Your task to perform on an android device: Turn on the flashlight Image 0: 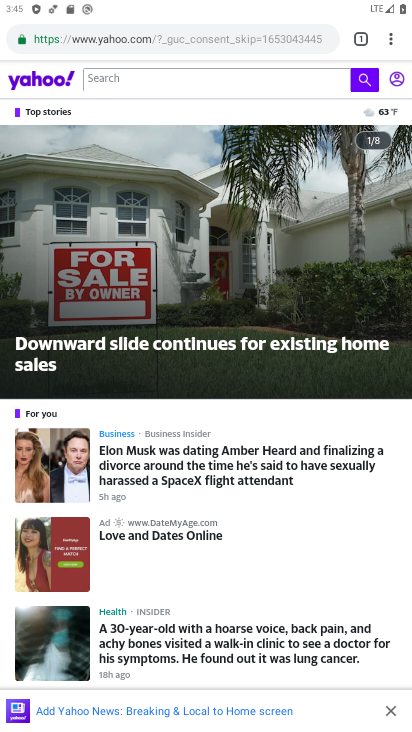
Step 0: drag from (229, 710) to (192, 355)
Your task to perform on an android device: Turn on the flashlight Image 1: 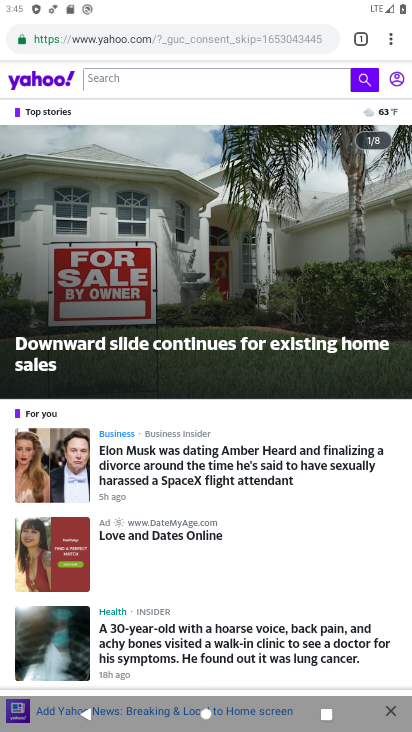
Step 1: press home button
Your task to perform on an android device: Turn on the flashlight Image 2: 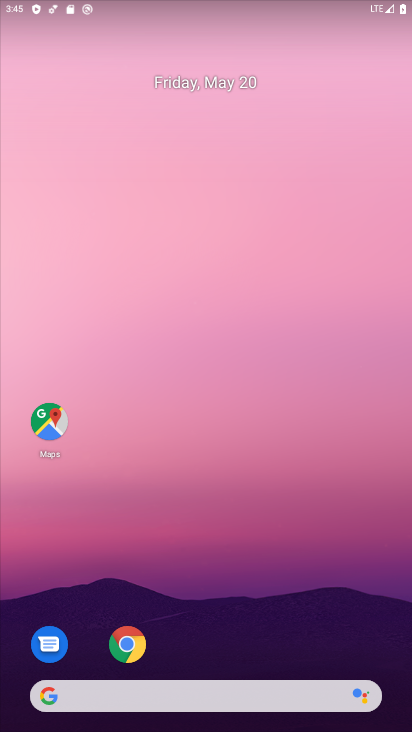
Step 2: drag from (254, 714) to (242, 199)
Your task to perform on an android device: Turn on the flashlight Image 3: 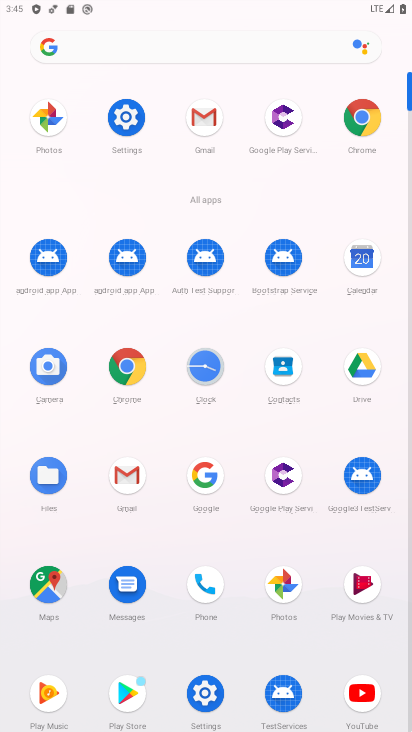
Step 3: click (136, 124)
Your task to perform on an android device: Turn on the flashlight Image 4: 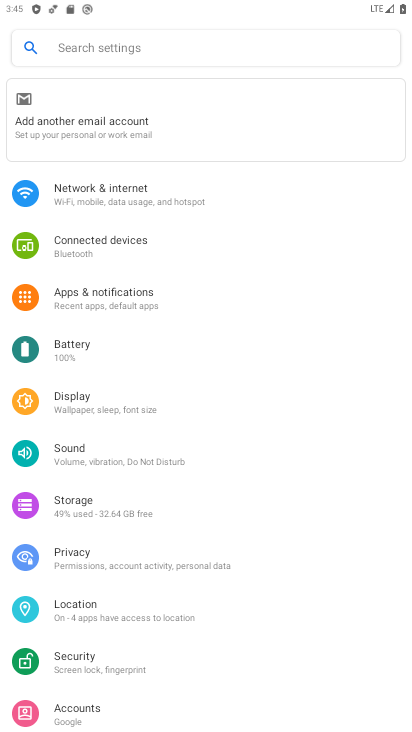
Step 4: click (115, 191)
Your task to perform on an android device: Turn on the flashlight Image 5: 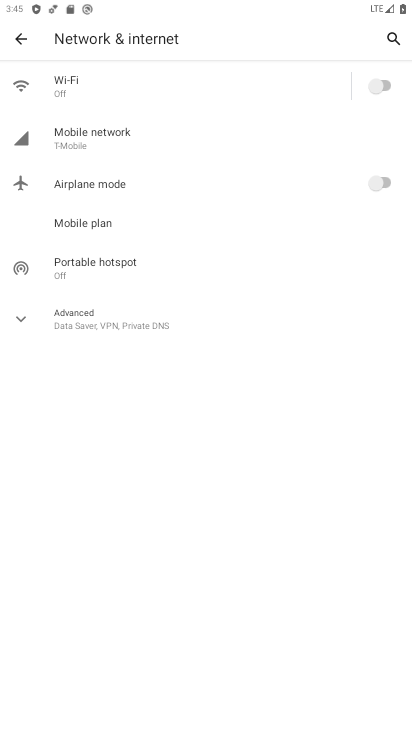
Step 5: click (26, 39)
Your task to perform on an android device: Turn on the flashlight Image 6: 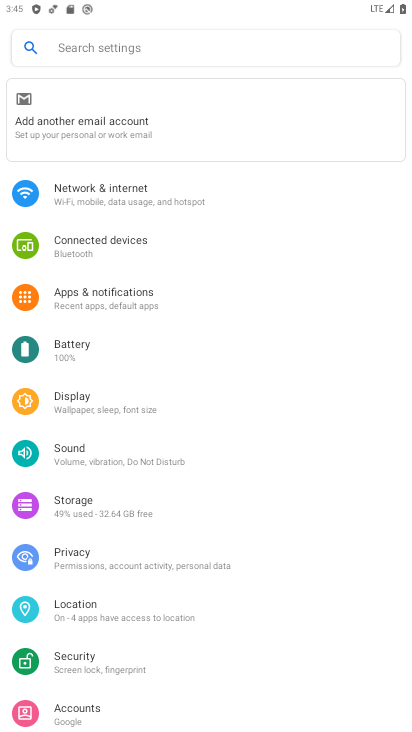
Step 6: click (96, 48)
Your task to perform on an android device: Turn on the flashlight Image 7: 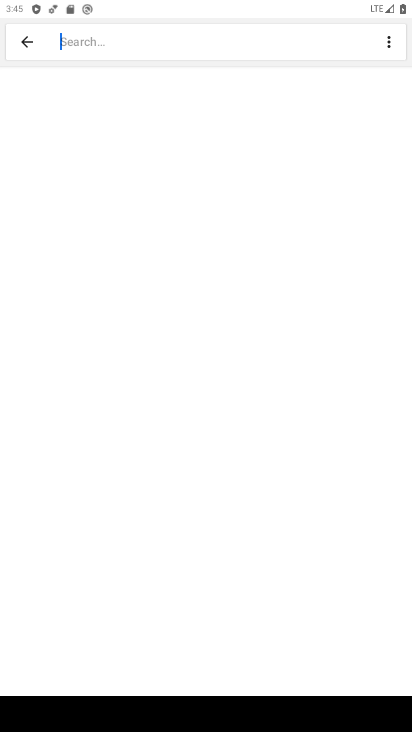
Step 7: drag from (377, 723) to (340, 475)
Your task to perform on an android device: Turn on the flashlight Image 8: 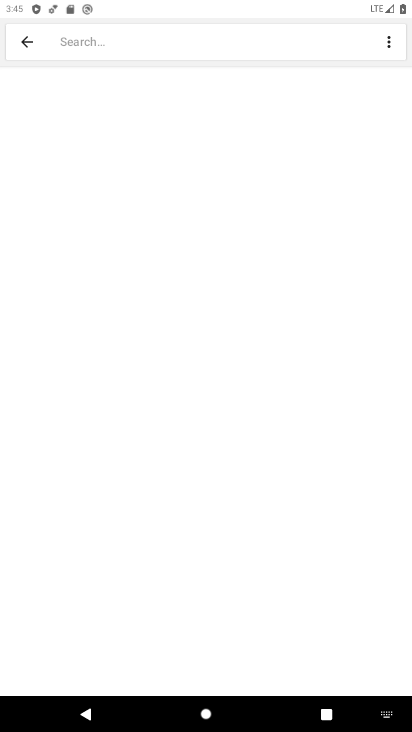
Step 8: click (388, 715)
Your task to perform on an android device: Turn on the flashlight Image 9: 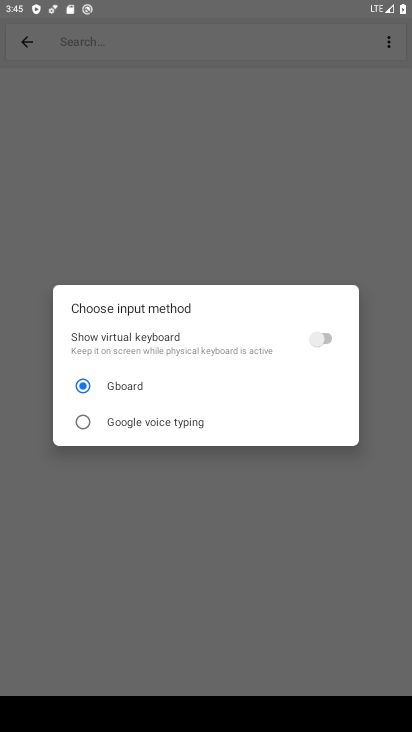
Step 9: click (330, 343)
Your task to perform on an android device: Turn on the flashlight Image 10: 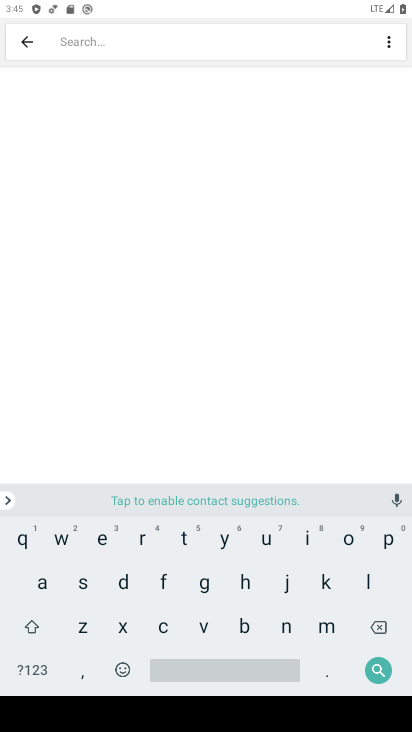
Step 10: click (89, 43)
Your task to perform on an android device: Turn on the flashlight Image 11: 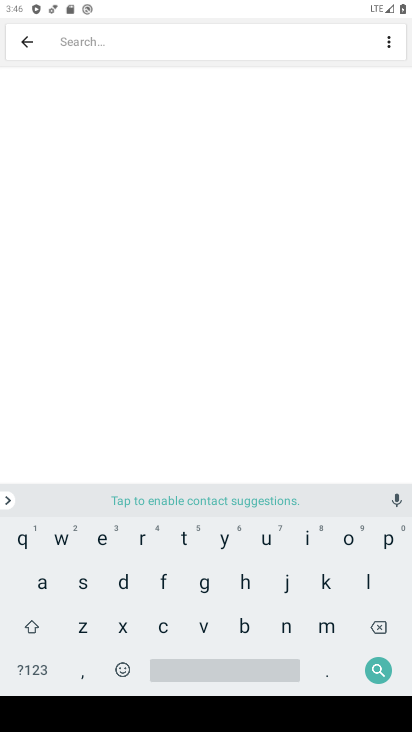
Step 11: click (158, 595)
Your task to perform on an android device: Turn on the flashlight Image 12: 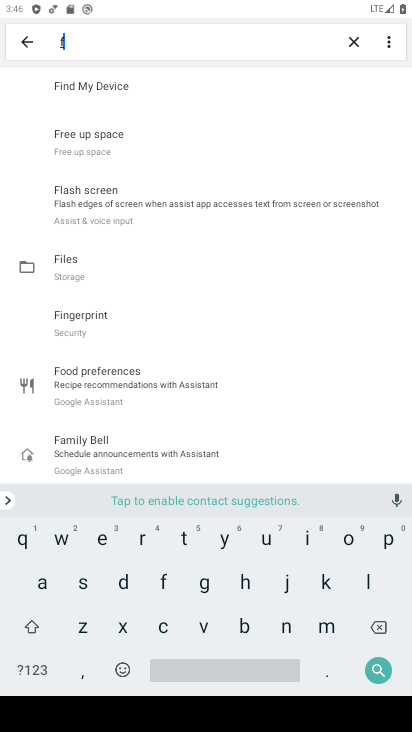
Step 12: click (372, 583)
Your task to perform on an android device: Turn on the flashlight Image 13: 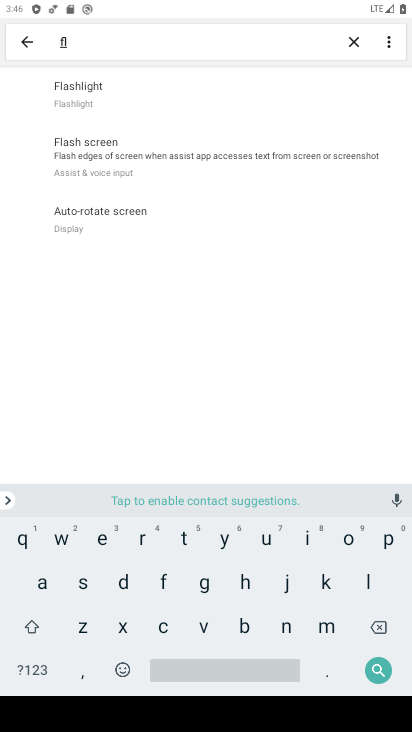
Step 13: click (134, 101)
Your task to perform on an android device: Turn on the flashlight Image 14: 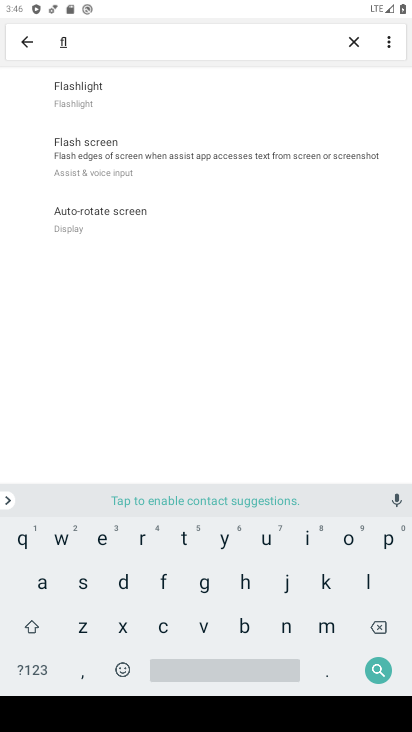
Step 14: task complete